Your task to perform on an android device: Open wifi settings Image 0: 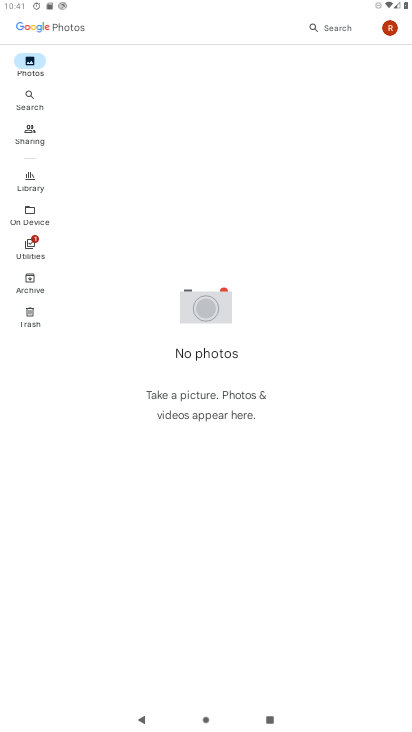
Step 0: press home button
Your task to perform on an android device: Open wifi settings Image 1: 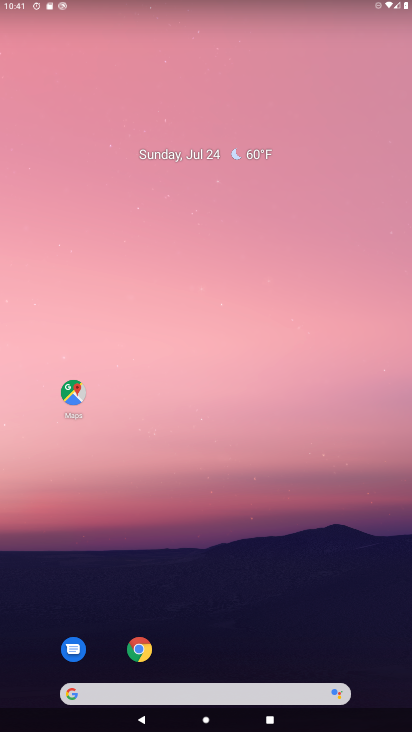
Step 1: drag from (326, 512) to (292, 86)
Your task to perform on an android device: Open wifi settings Image 2: 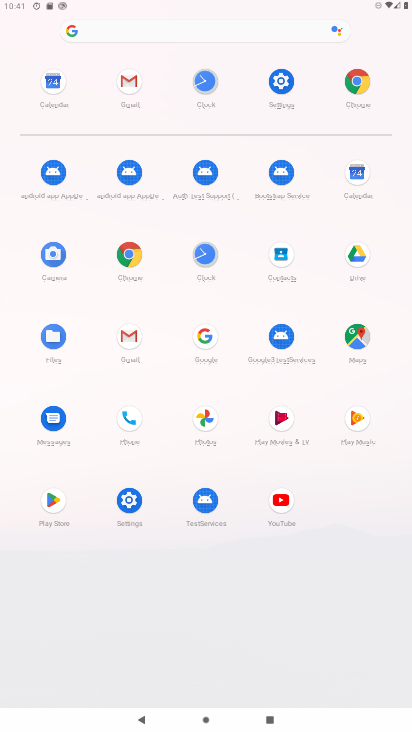
Step 2: click (272, 83)
Your task to perform on an android device: Open wifi settings Image 3: 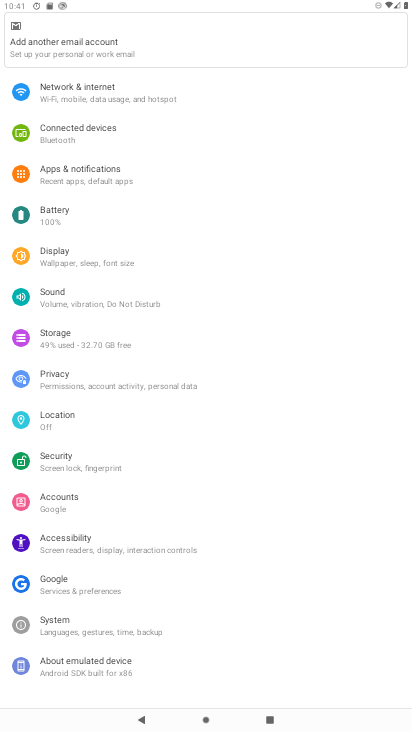
Step 3: click (130, 82)
Your task to perform on an android device: Open wifi settings Image 4: 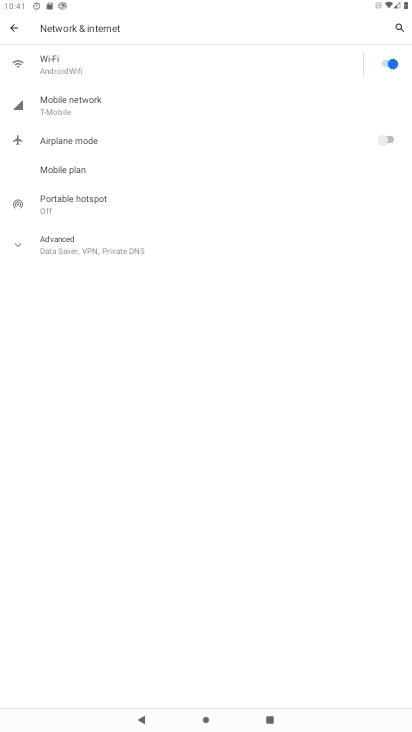
Step 4: click (135, 60)
Your task to perform on an android device: Open wifi settings Image 5: 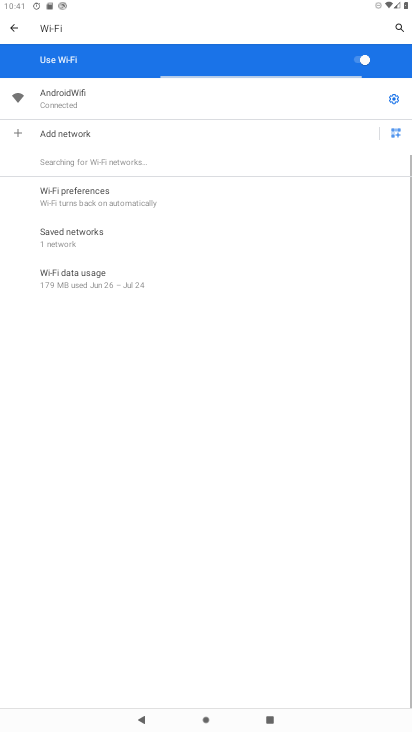
Step 5: click (396, 97)
Your task to perform on an android device: Open wifi settings Image 6: 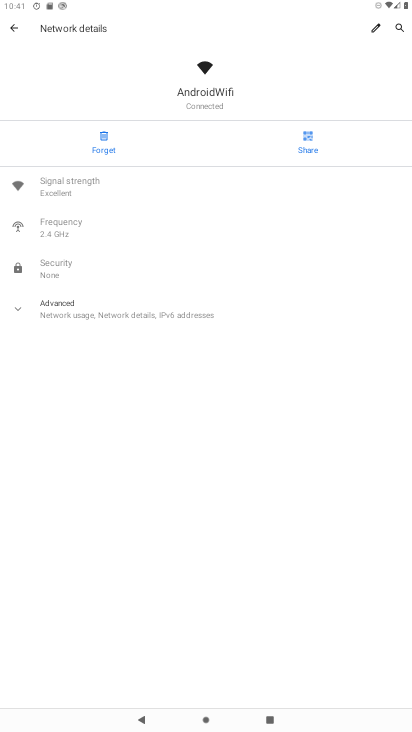
Step 6: task complete